Your task to perform on an android device: open app "DoorDash - Food Delivery" Image 0: 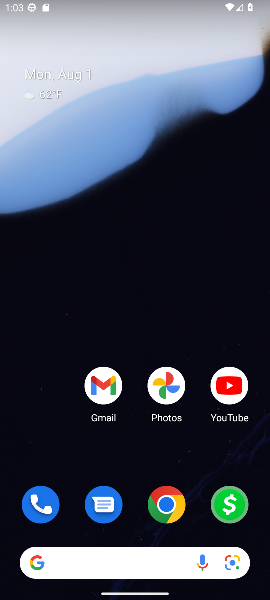
Step 0: drag from (109, 544) to (131, 58)
Your task to perform on an android device: open app "DoorDash - Food Delivery" Image 1: 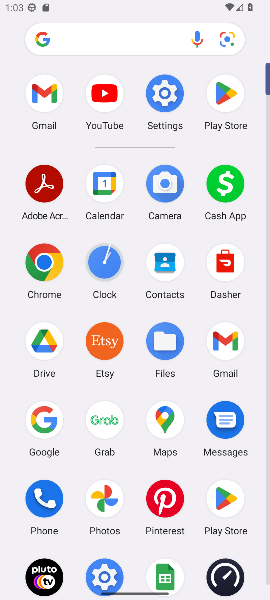
Step 1: click (237, 96)
Your task to perform on an android device: open app "DoorDash - Food Delivery" Image 2: 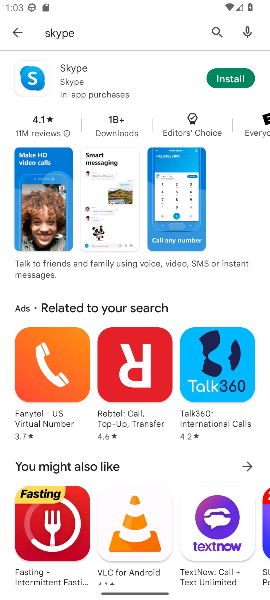
Step 2: click (217, 31)
Your task to perform on an android device: open app "DoorDash - Food Delivery" Image 3: 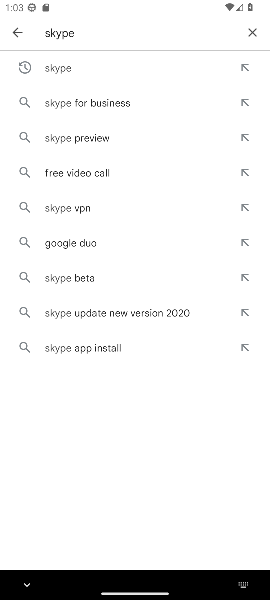
Step 3: click (253, 31)
Your task to perform on an android device: open app "DoorDash - Food Delivery" Image 4: 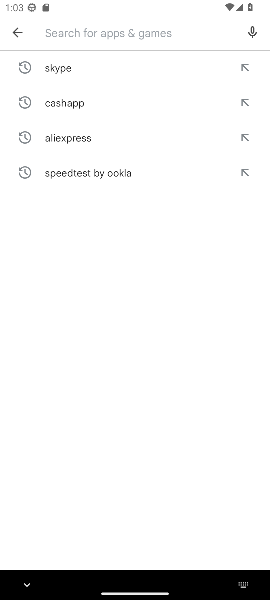
Step 4: type "Doordash - food delivery"
Your task to perform on an android device: open app "DoorDash - Food Delivery" Image 5: 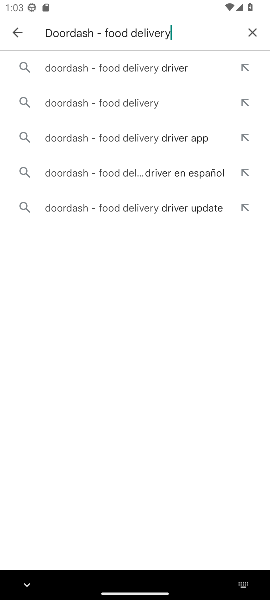
Step 5: click (116, 65)
Your task to perform on an android device: open app "DoorDash - Food Delivery" Image 6: 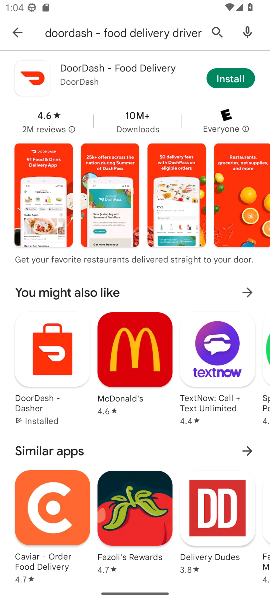
Step 6: task complete